Your task to perform on an android device: Open the map Image 0: 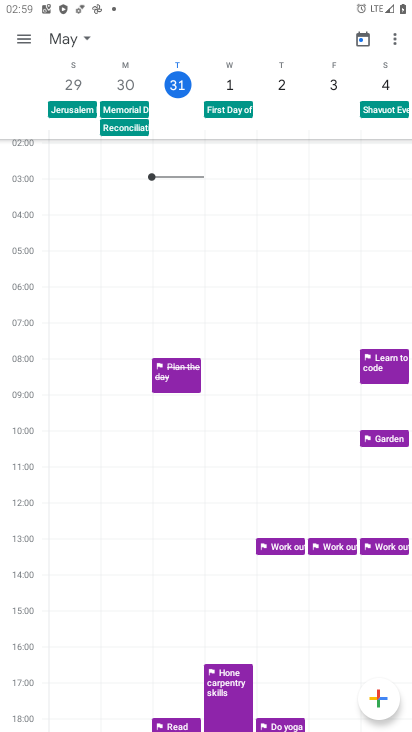
Step 0: press home button
Your task to perform on an android device: Open the map Image 1: 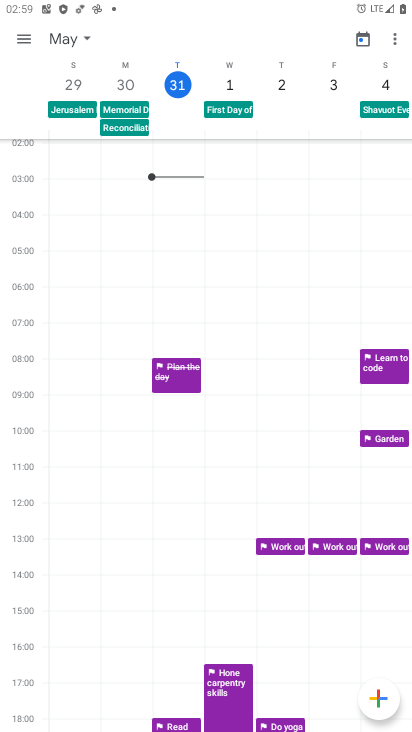
Step 1: press home button
Your task to perform on an android device: Open the map Image 2: 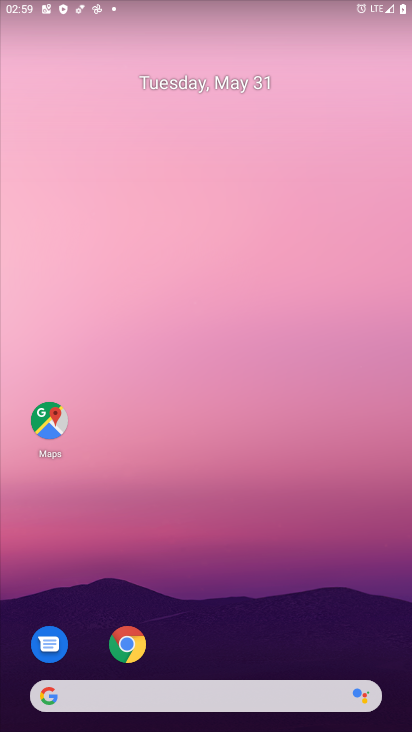
Step 2: click (46, 416)
Your task to perform on an android device: Open the map Image 3: 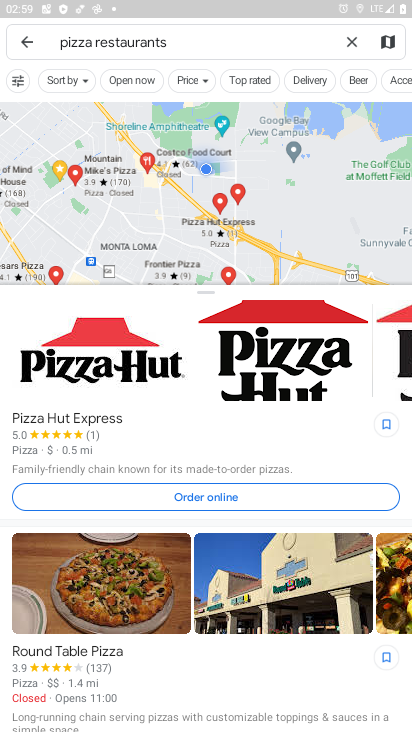
Step 3: task complete